Your task to perform on an android device: Open maps Image 0: 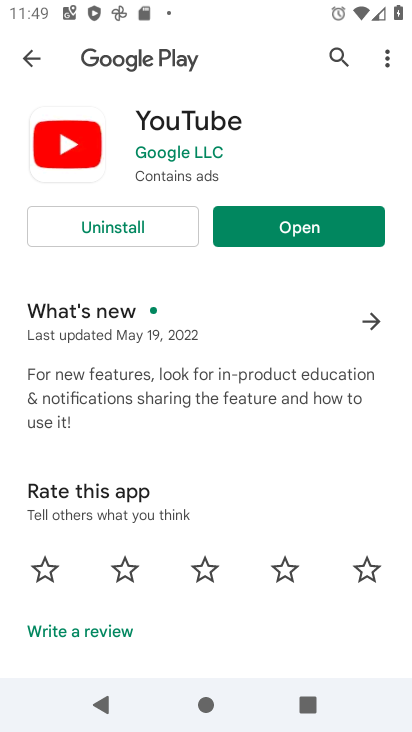
Step 0: press home button
Your task to perform on an android device: Open maps Image 1: 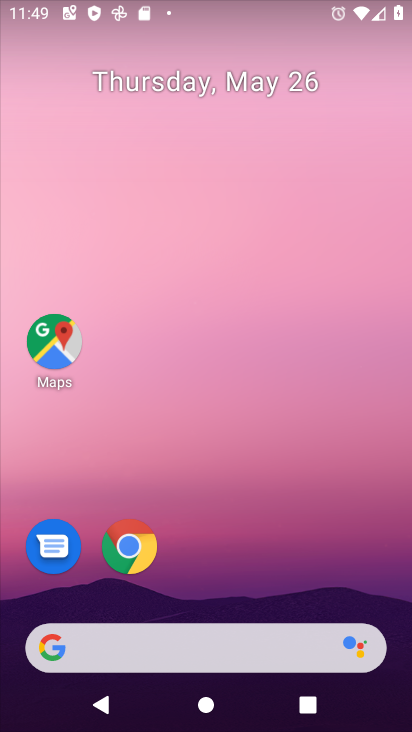
Step 1: click (56, 348)
Your task to perform on an android device: Open maps Image 2: 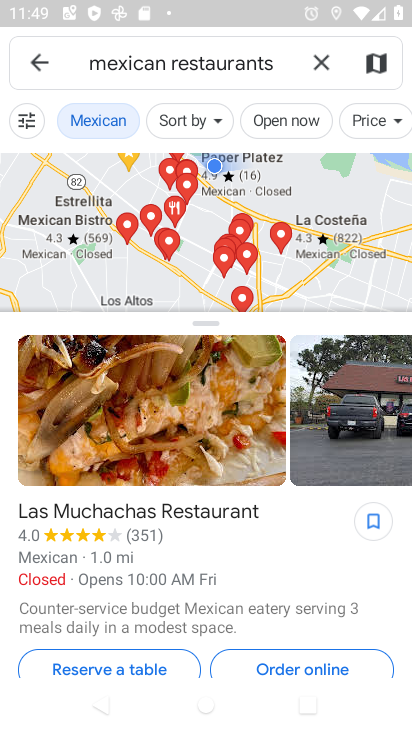
Step 2: task complete